Your task to perform on an android device: set an alarm Image 0: 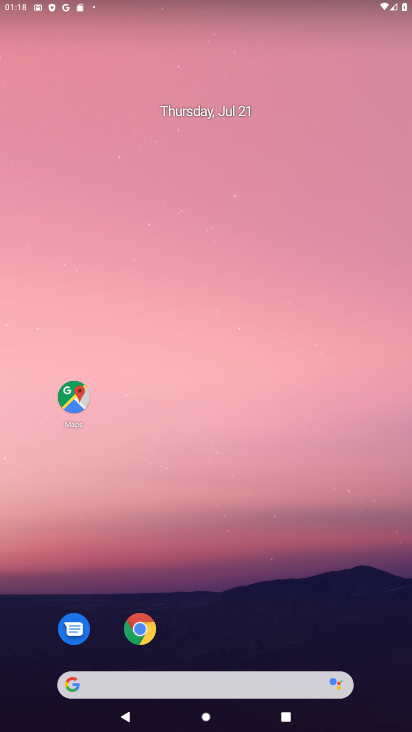
Step 0: drag from (220, 617) to (233, 104)
Your task to perform on an android device: set an alarm Image 1: 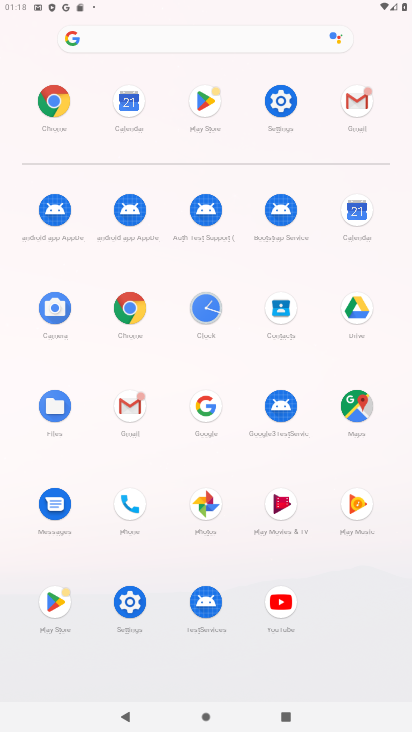
Step 1: click (207, 310)
Your task to perform on an android device: set an alarm Image 2: 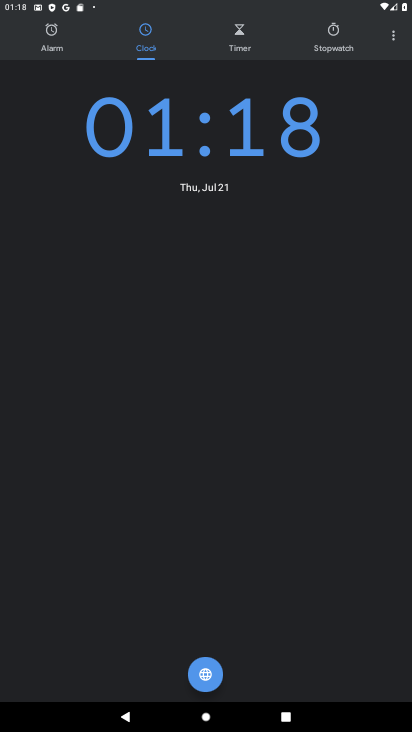
Step 2: click (56, 37)
Your task to perform on an android device: set an alarm Image 3: 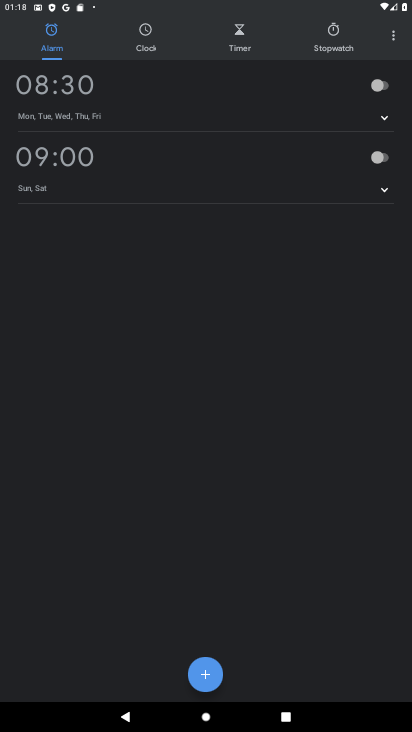
Step 3: click (377, 86)
Your task to perform on an android device: set an alarm Image 4: 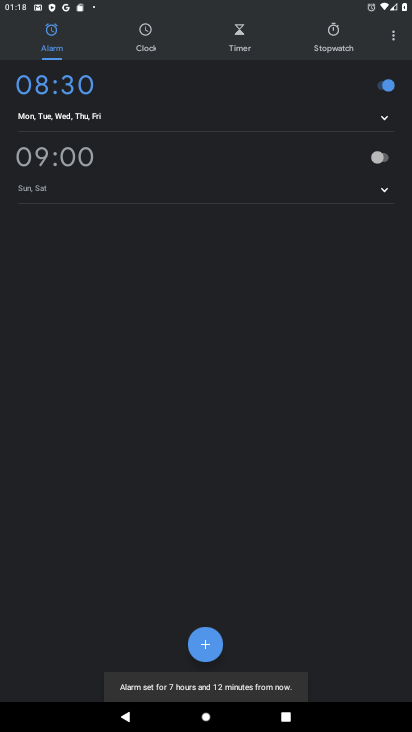
Step 4: task complete